Your task to perform on an android device: Open Chrome and go to settings Image 0: 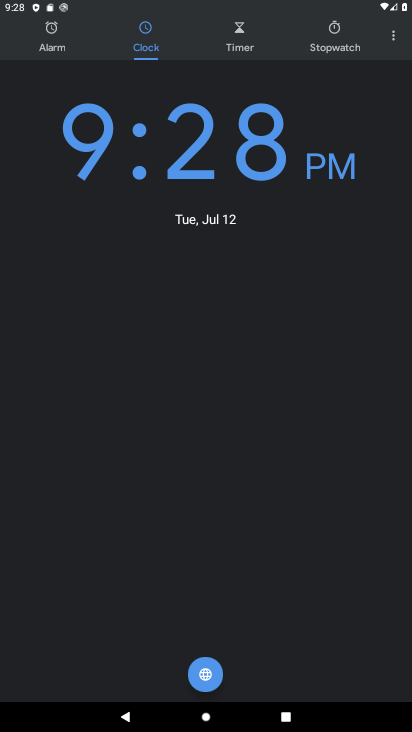
Step 0: press home button
Your task to perform on an android device: Open Chrome and go to settings Image 1: 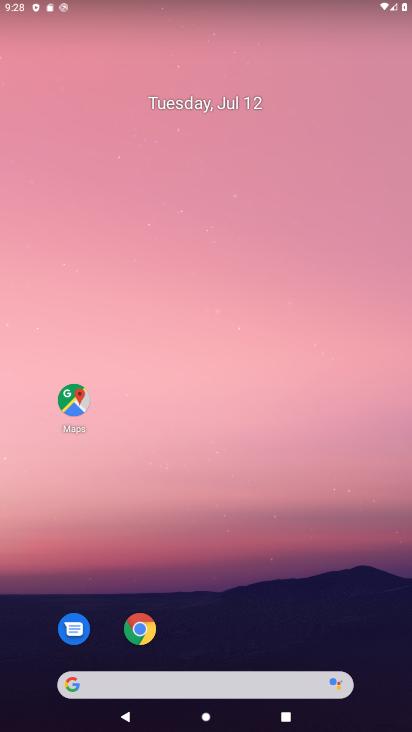
Step 1: drag from (297, 639) to (338, 6)
Your task to perform on an android device: Open Chrome and go to settings Image 2: 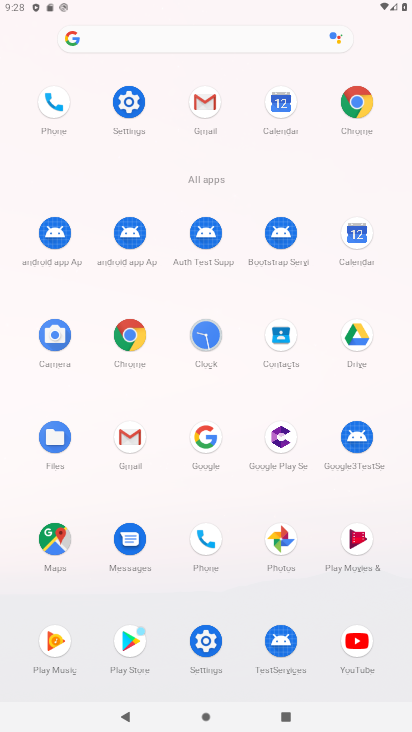
Step 2: click (130, 337)
Your task to perform on an android device: Open Chrome and go to settings Image 3: 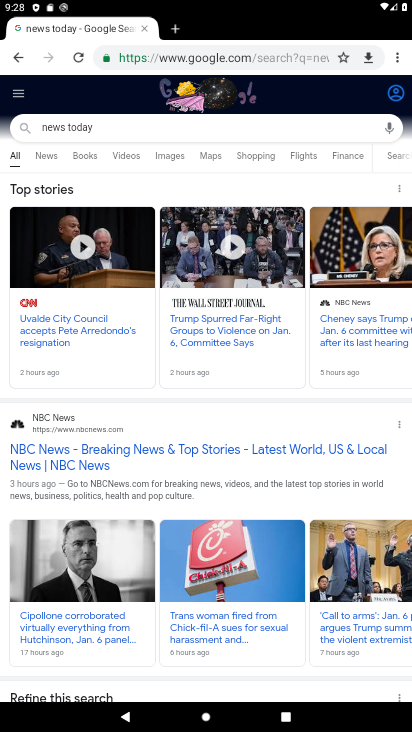
Step 3: task complete